Your task to perform on an android device: snooze an email in the gmail app Image 0: 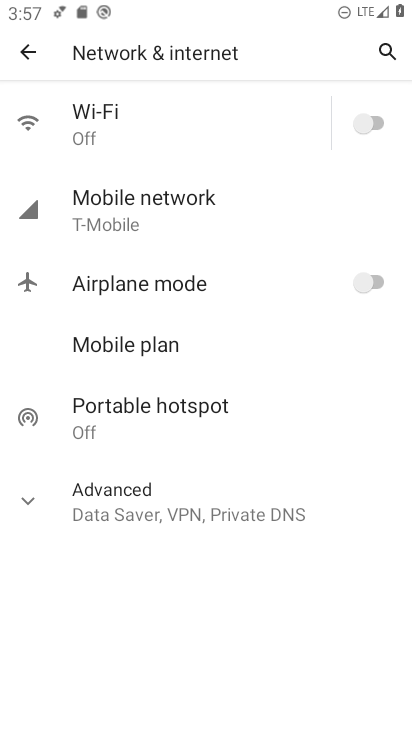
Step 0: press home button
Your task to perform on an android device: snooze an email in the gmail app Image 1: 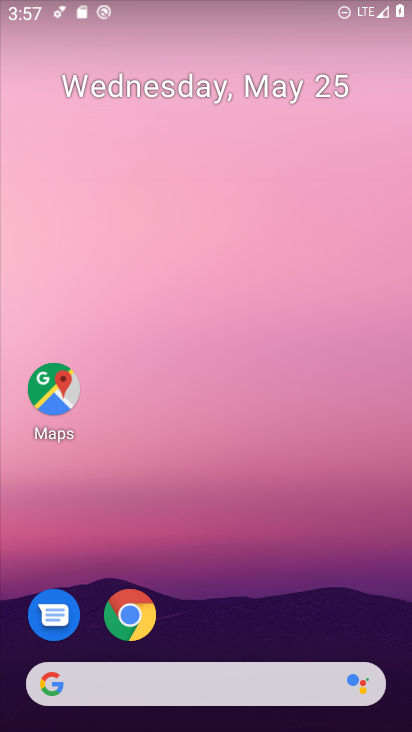
Step 1: drag from (207, 586) to (255, 9)
Your task to perform on an android device: snooze an email in the gmail app Image 2: 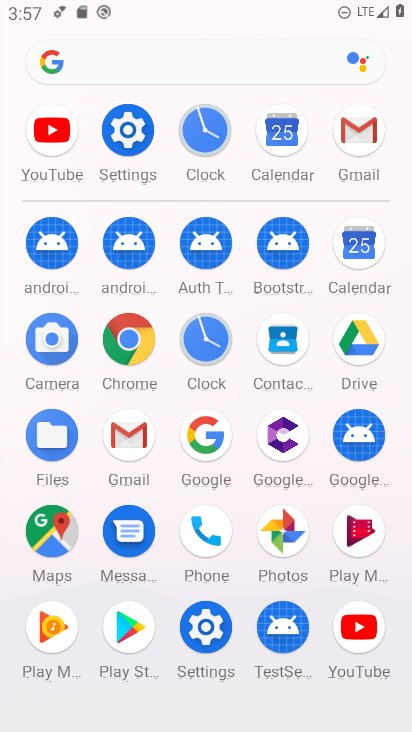
Step 2: click (366, 135)
Your task to perform on an android device: snooze an email in the gmail app Image 3: 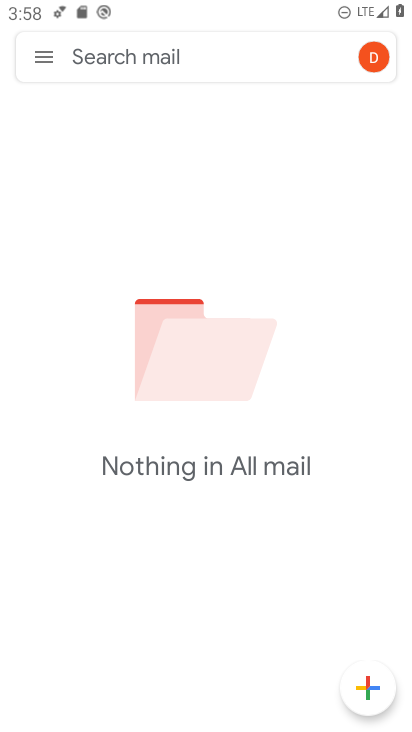
Step 3: task complete